Your task to perform on an android device: open app "HBO Max: Stream TV & Movies" (install if not already installed) Image 0: 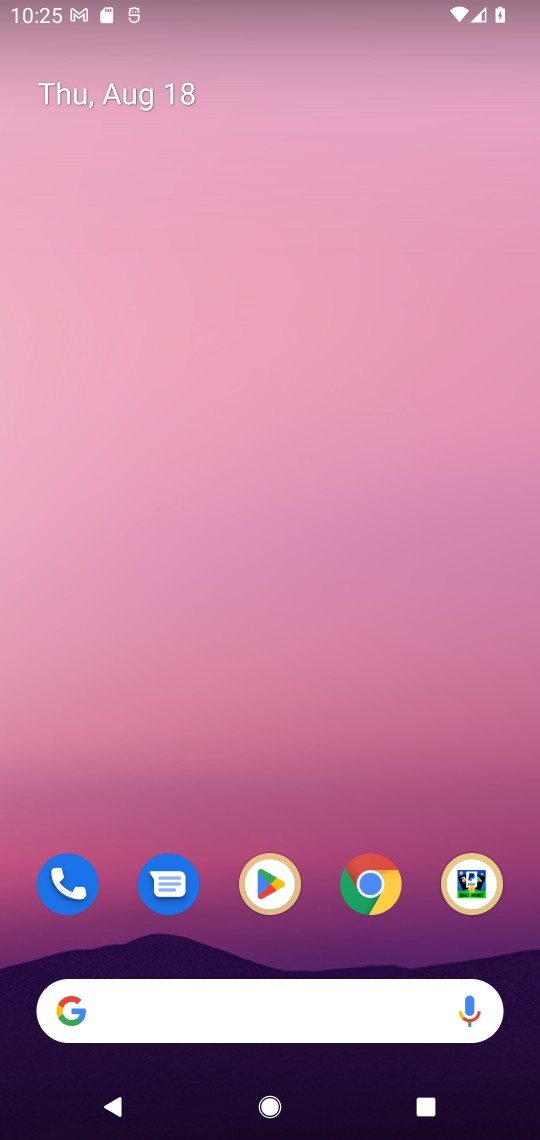
Step 0: drag from (261, 1028) to (292, 199)
Your task to perform on an android device: open app "HBO Max: Stream TV & Movies" (install if not already installed) Image 1: 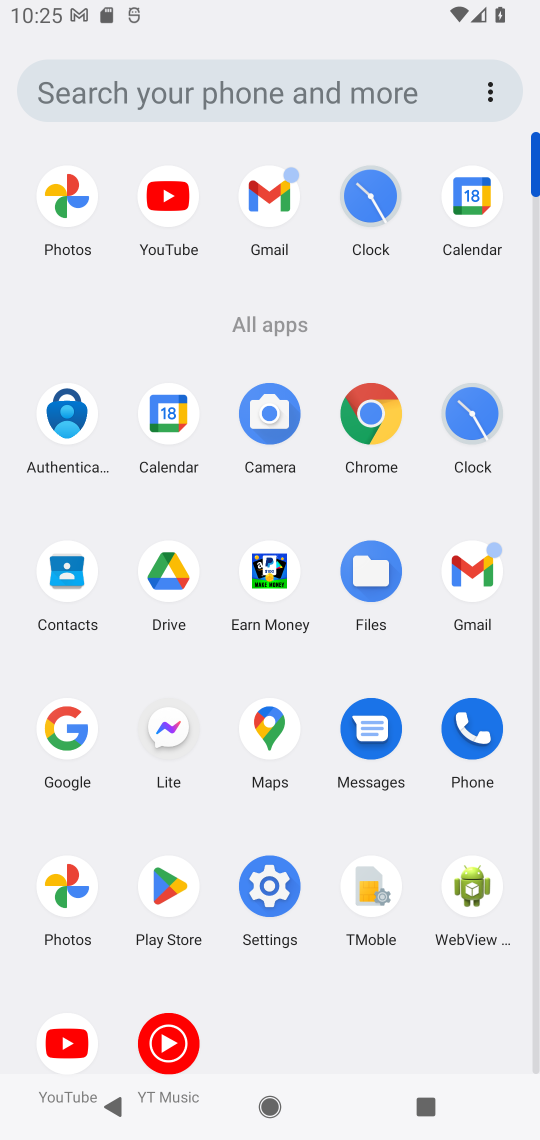
Step 1: click (173, 892)
Your task to perform on an android device: open app "HBO Max: Stream TV & Movies" (install if not already installed) Image 2: 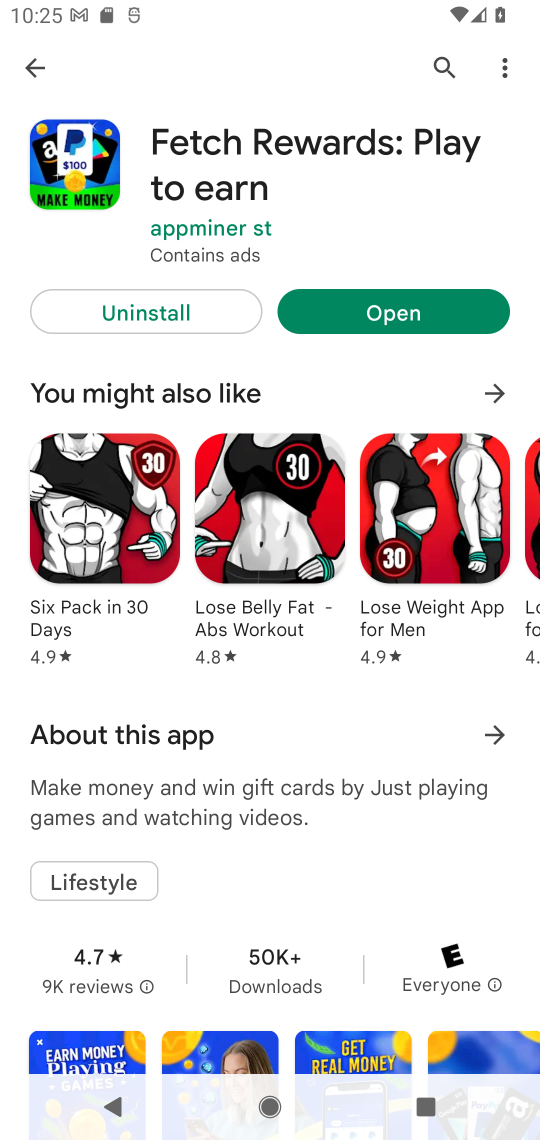
Step 2: press back button
Your task to perform on an android device: open app "HBO Max: Stream TV & Movies" (install if not already installed) Image 3: 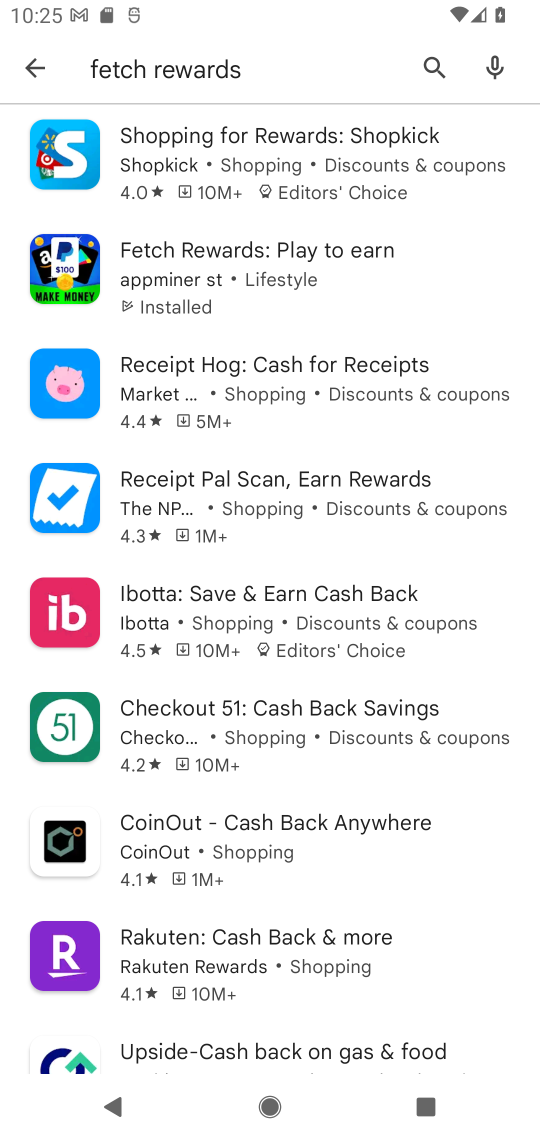
Step 3: press back button
Your task to perform on an android device: open app "HBO Max: Stream TV & Movies" (install if not already installed) Image 4: 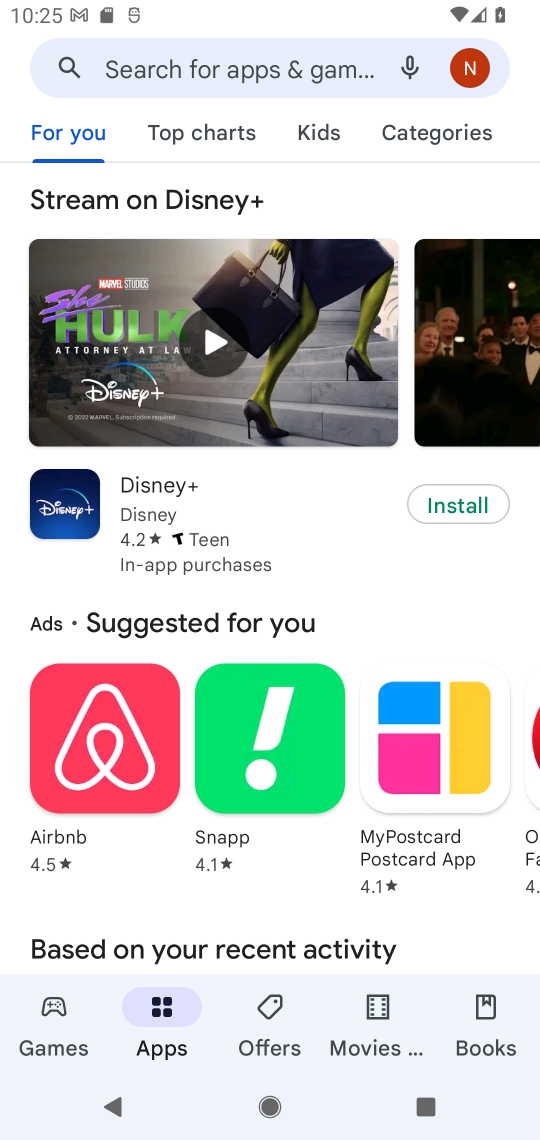
Step 4: click (221, 81)
Your task to perform on an android device: open app "HBO Max: Stream TV & Movies" (install if not already installed) Image 5: 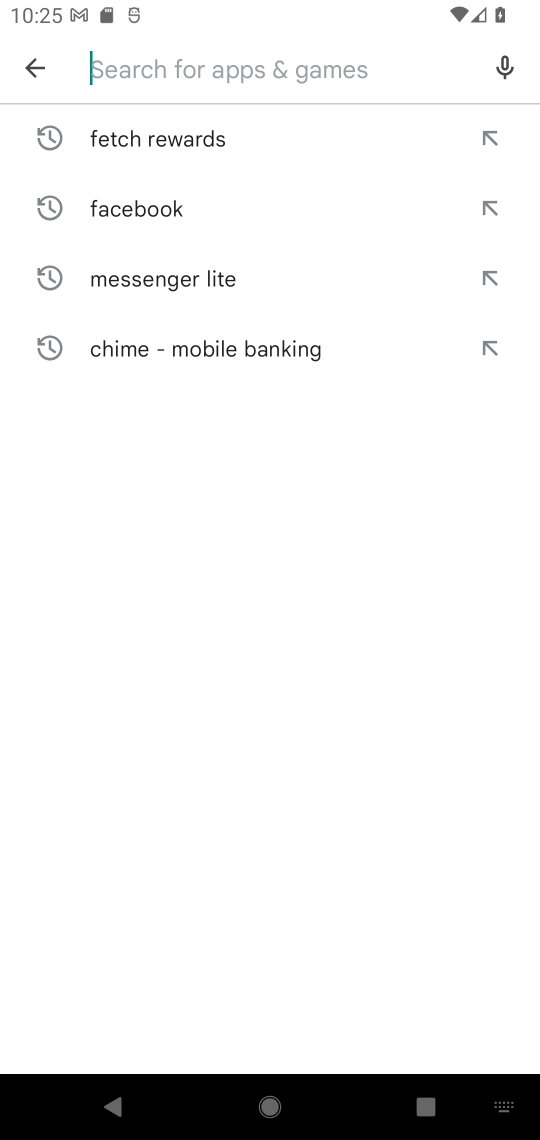
Step 5: type "HBO Max: Stream TV & Movies"
Your task to perform on an android device: open app "HBO Max: Stream TV & Movies" (install if not already installed) Image 6: 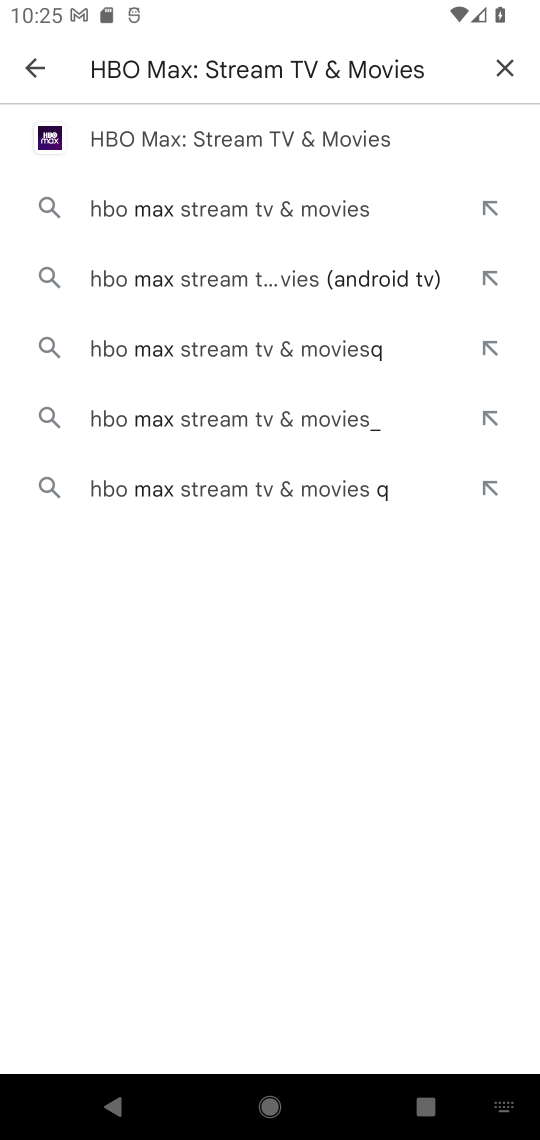
Step 6: click (243, 135)
Your task to perform on an android device: open app "HBO Max: Stream TV & Movies" (install if not already installed) Image 7: 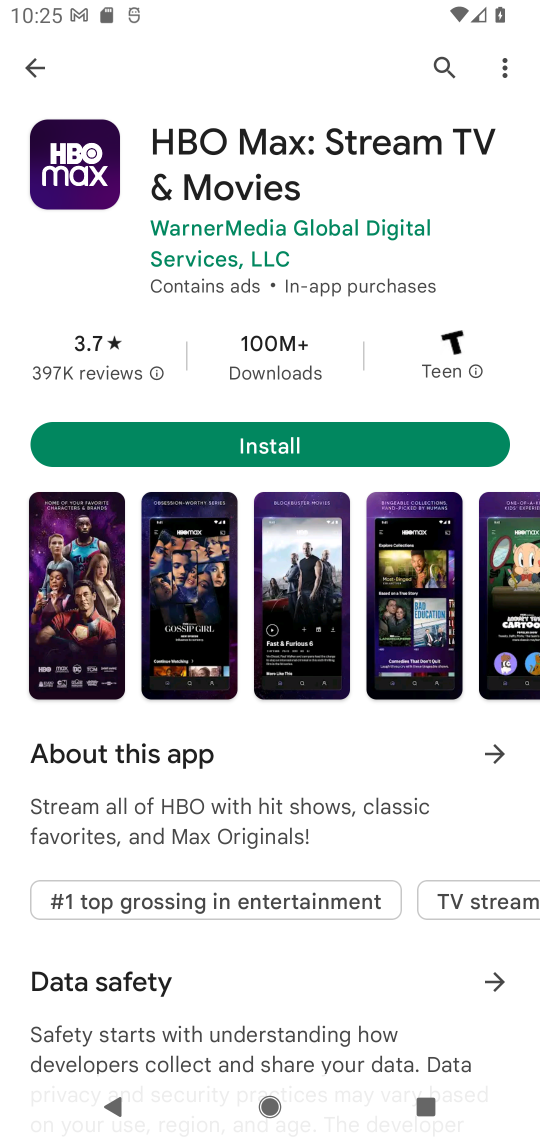
Step 7: click (310, 451)
Your task to perform on an android device: open app "HBO Max: Stream TV & Movies" (install if not already installed) Image 8: 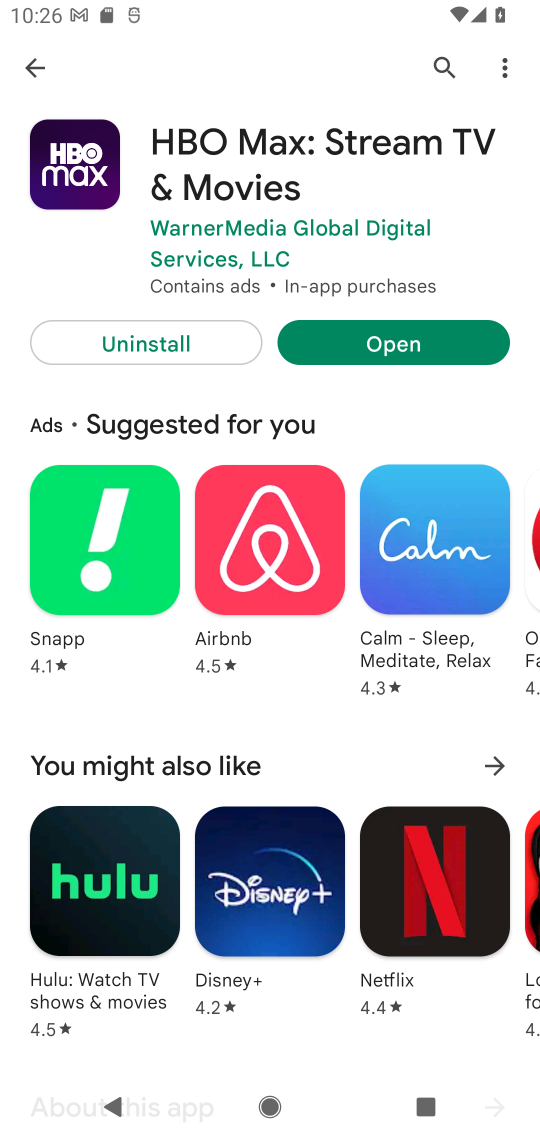
Step 8: click (389, 348)
Your task to perform on an android device: open app "HBO Max: Stream TV & Movies" (install if not already installed) Image 9: 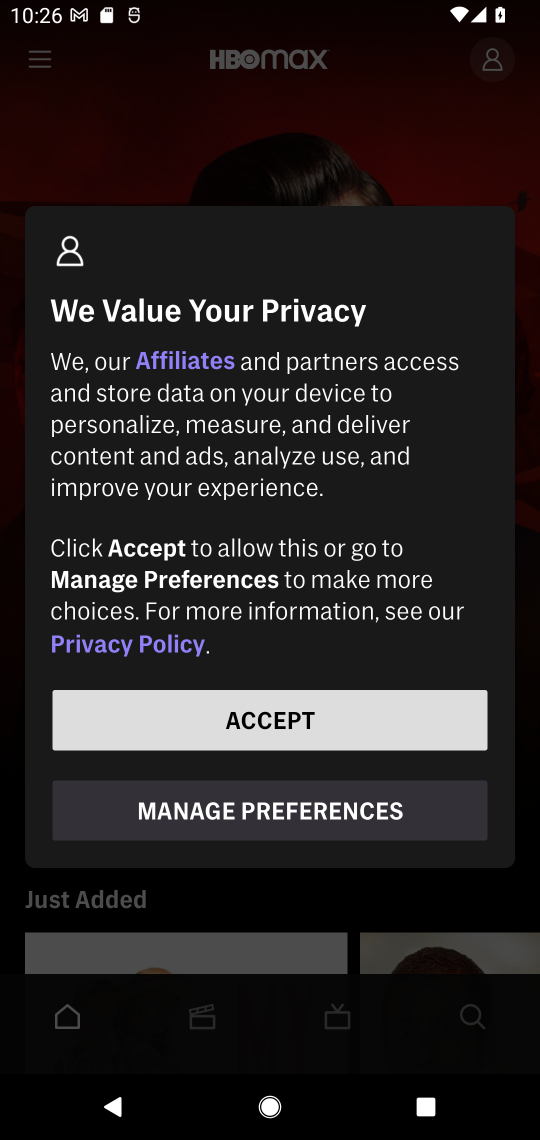
Step 9: task complete